Your task to perform on an android device: Go to Yahoo.com Image 0: 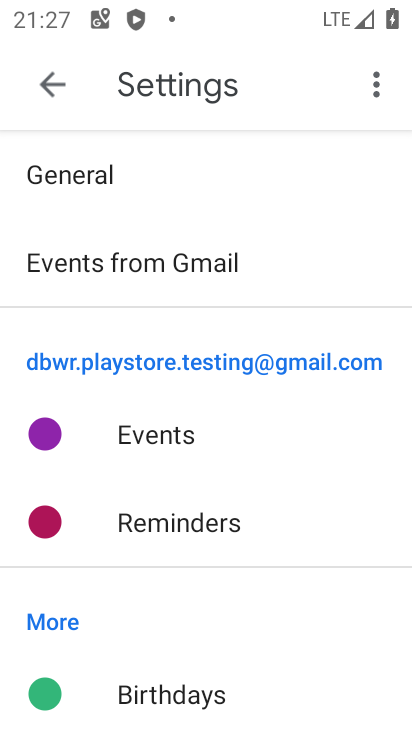
Step 0: press home button
Your task to perform on an android device: Go to Yahoo.com Image 1: 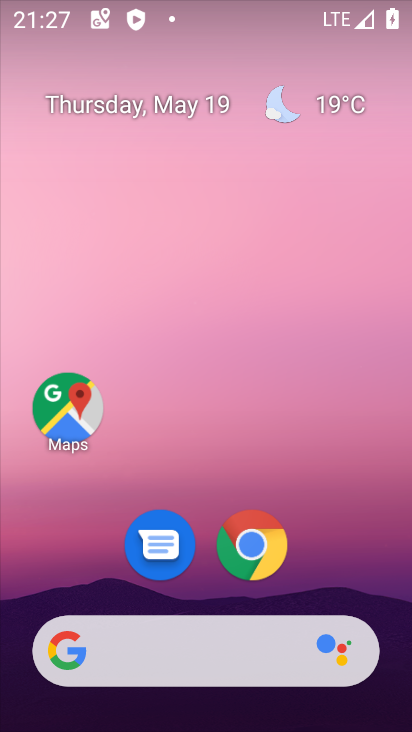
Step 1: click (258, 530)
Your task to perform on an android device: Go to Yahoo.com Image 2: 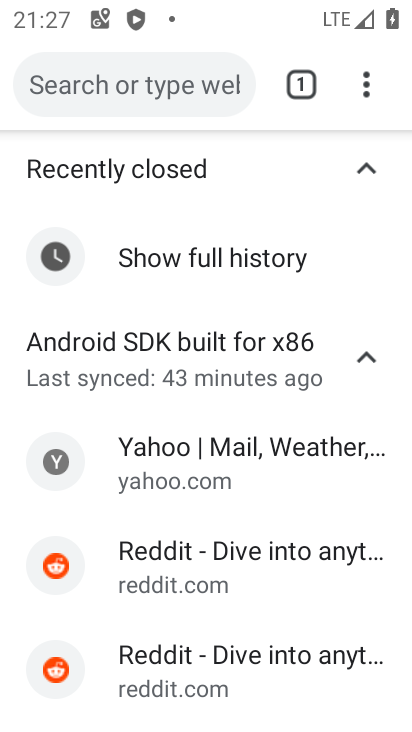
Step 2: click (213, 471)
Your task to perform on an android device: Go to Yahoo.com Image 3: 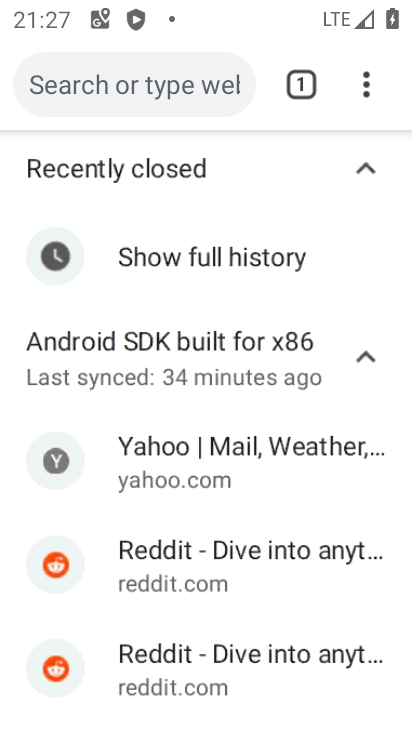
Step 3: task complete